Your task to perform on an android device: visit the assistant section in the google photos Image 0: 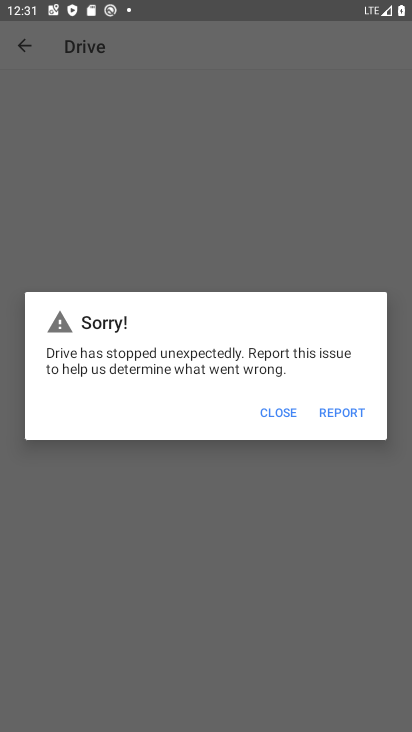
Step 0: press home button
Your task to perform on an android device: visit the assistant section in the google photos Image 1: 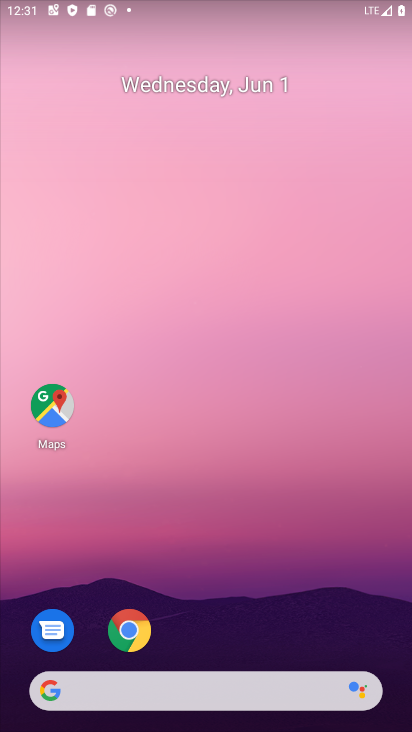
Step 1: drag from (254, 596) to (272, 120)
Your task to perform on an android device: visit the assistant section in the google photos Image 2: 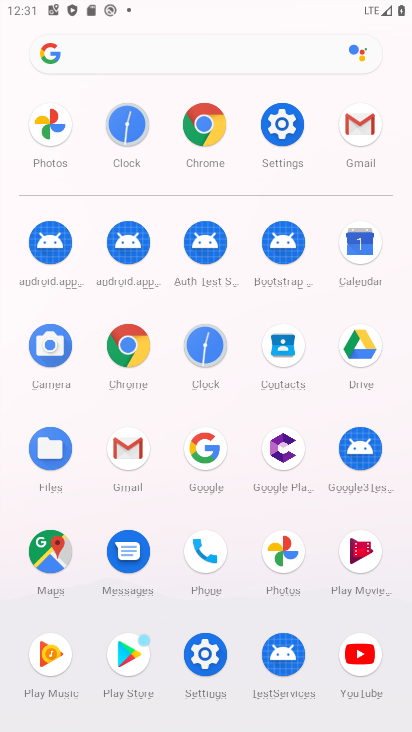
Step 2: click (41, 122)
Your task to perform on an android device: visit the assistant section in the google photos Image 3: 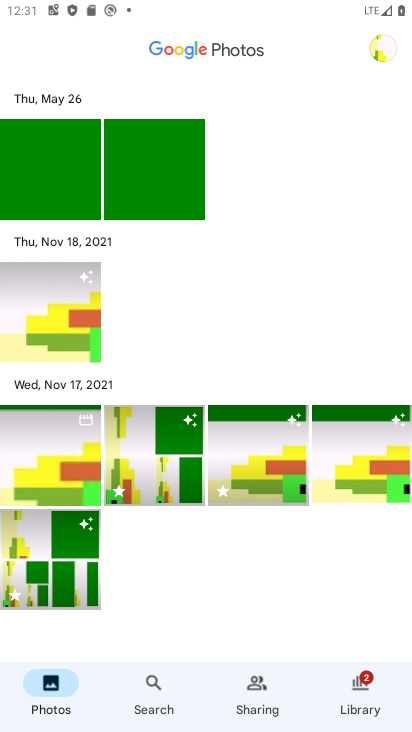
Step 3: click (45, 692)
Your task to perform on an android device: visit the assistant section in the google photos Image 4: 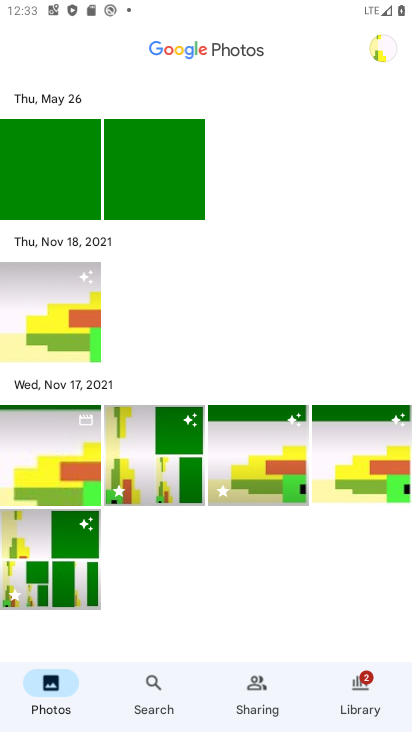
Step 4: click (146, 688)
Your task to perform on an android device: visit the assistant section in the google photos Image 5: 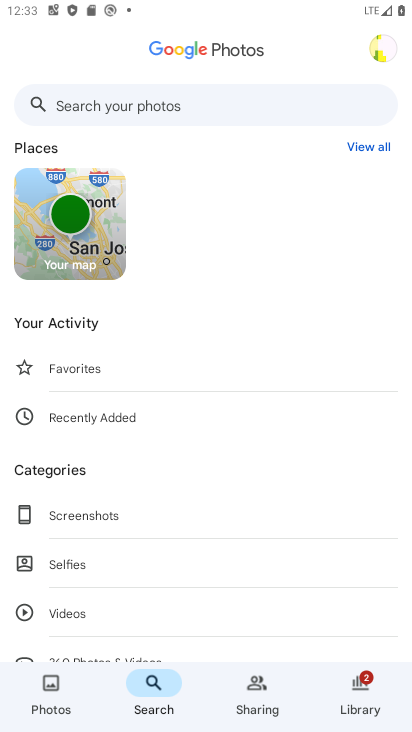
Step 5: task complete